Your task to perform on an android device: open device folders in google photos Image 0: 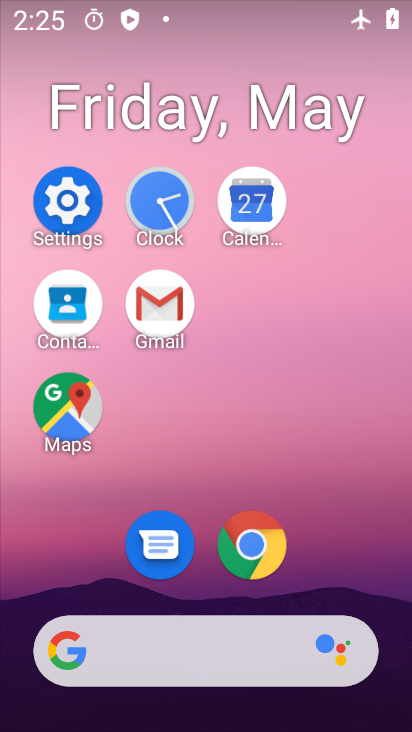
Step 0: drag from (370, 527) to (348, 76)
Your task to perform on an android device: open device folders in google photos Image 1: 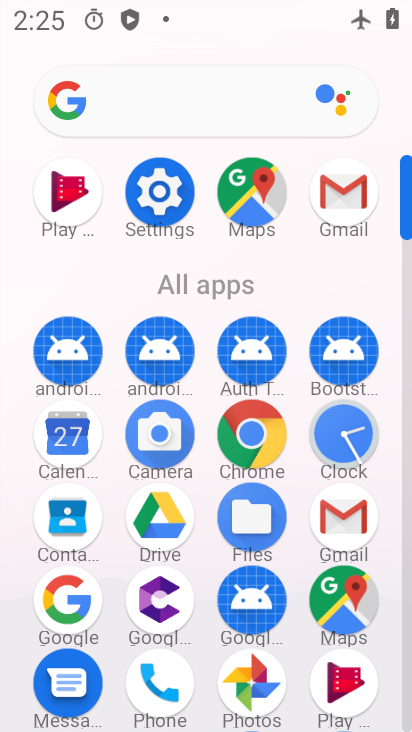
Step 1: drag from (241, 681) to (267, 280)
Your task to perform on an android device: open device folders in google photos Image 2: 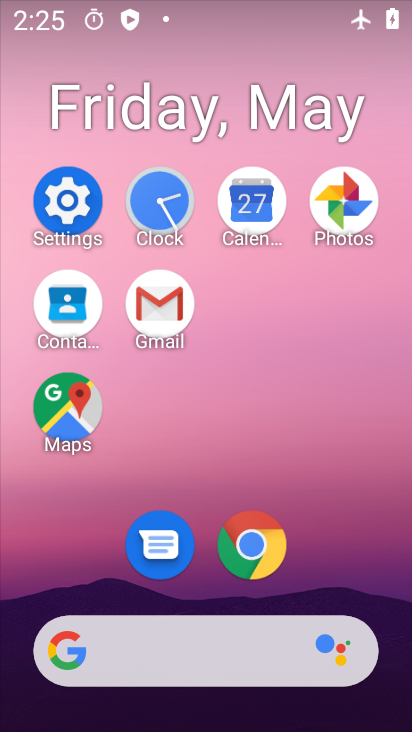
Step 2: click (344, 193)
Your task to perform on an android device: open device folders in google photos Image 3: 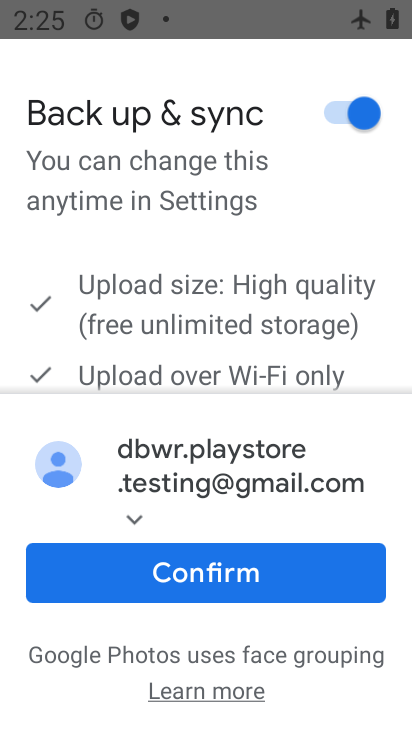
Step 3: click (286, 582)
Your task to perform on an android device: open device folders in google photos Image 4: 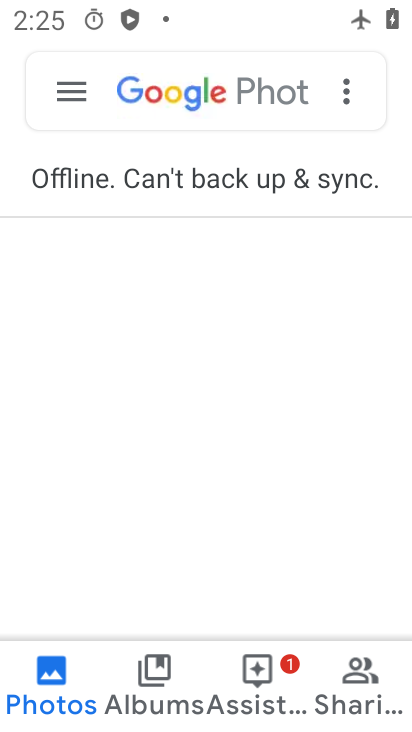
Step 4: click (56, 101)
Your task to perform on an android device: open device folders in google photos Image 5: 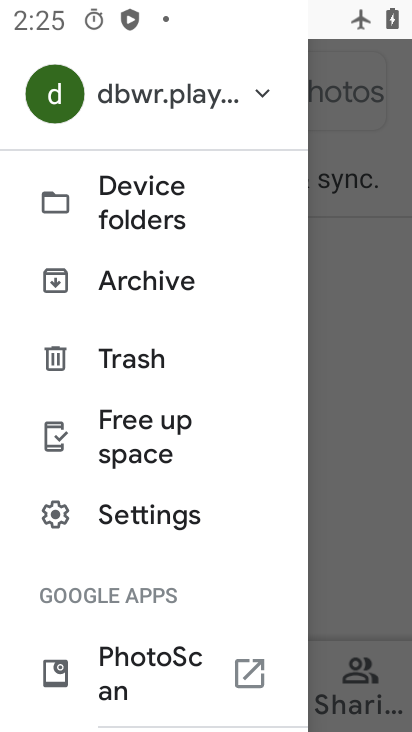
Step 5: click (194, 212)
Your task to perform on an android device: open device folders in google photos Image 6: 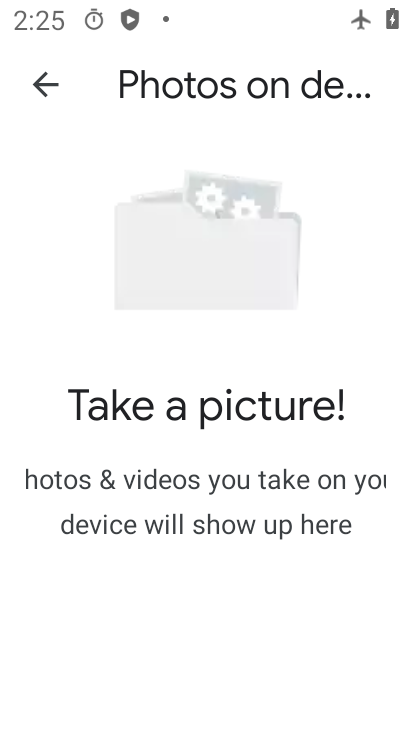
Step 6: task complete